Your task to perform on an android device: check storage Image 0: 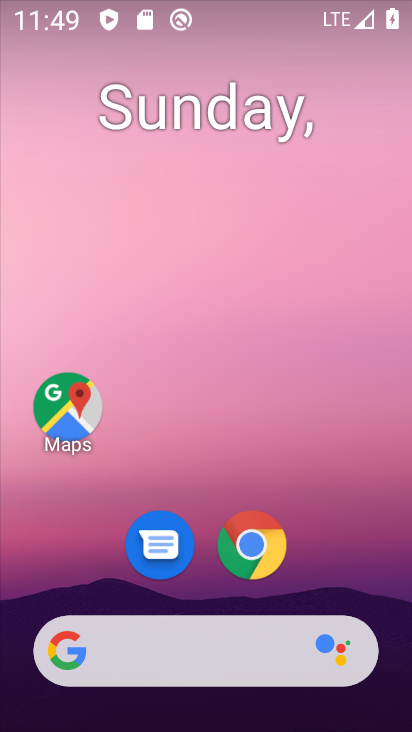
Step 0: drag from (370, 534) to (370, 137)
Your task to perform on an android device: check storage Image 1: 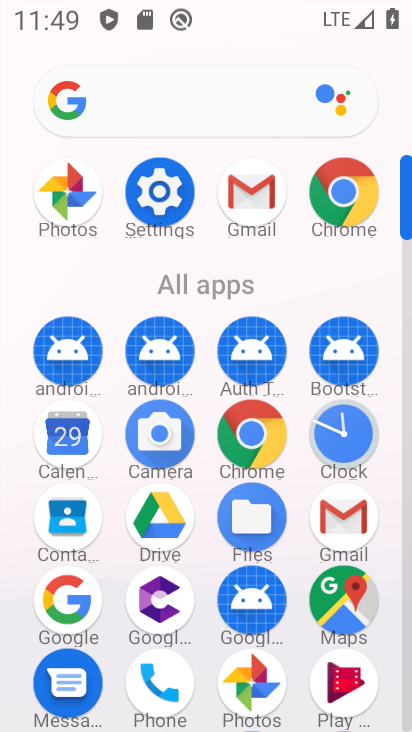
Step 1: click (165, 210)
Your task to perform on an android device: check storage Image 2: 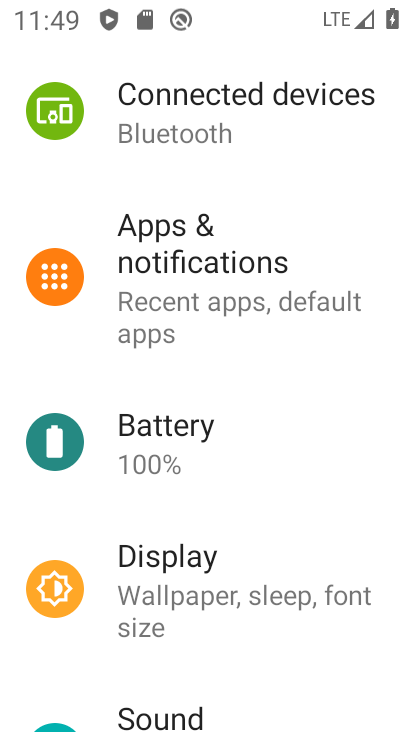
Step 2: drag from (338, 210) to (341, 369)
Your task to perform on an android device: check storage Image 3: 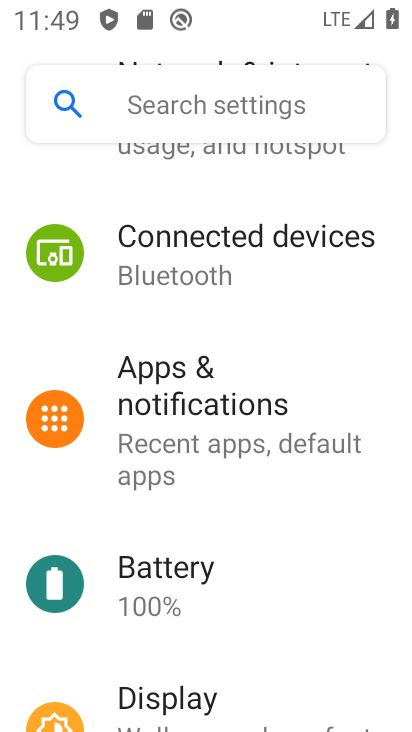
Step 3: drag from (357, 181) to (361, 367)
Your task to perform on an android device: check storage Image 4: 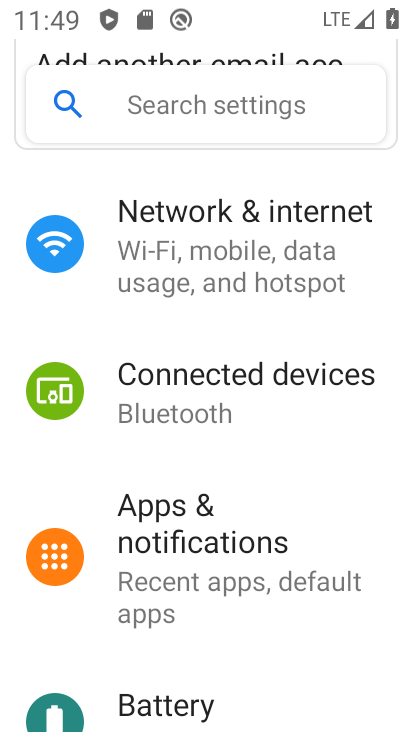
Step 4: drag from (369, 160) to (353, 340)
Your task to perform on an android device: check storage Image 5: 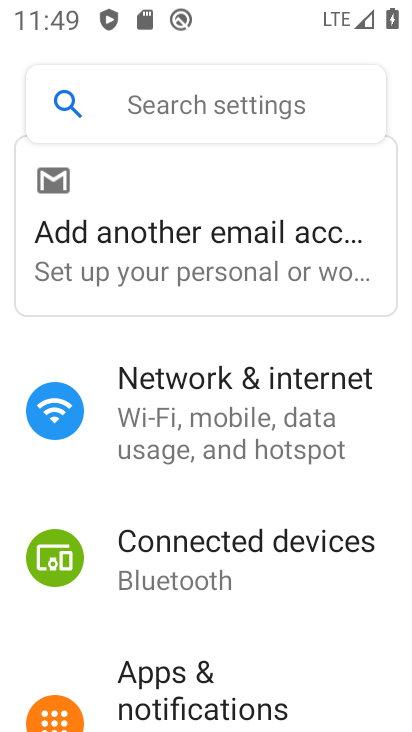
Step 5: drag from (359, 229) to (360, 367)
Your task to perform on an android device: check storage Image 6: 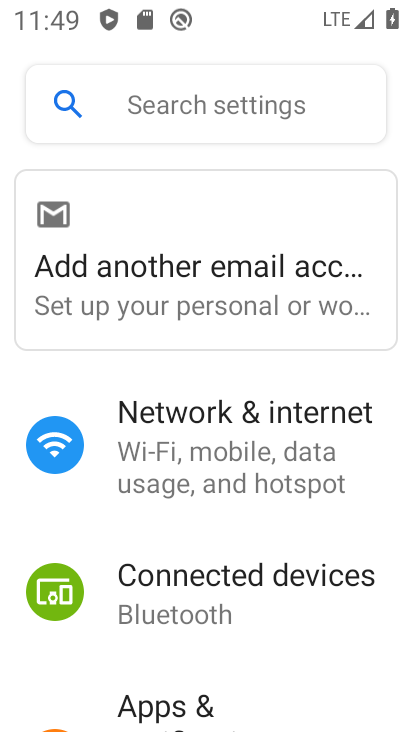
Step 6: drag from (323, 541) to (334, 423)
Your task to perform on an android device: check storage Image 7: 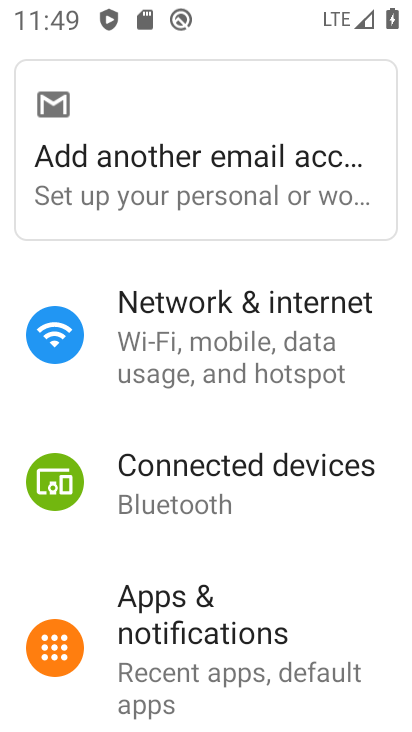
Step 7: drag from (332, 568) to (340, 399)
Your task to perform on an android device: check storage Image 8: 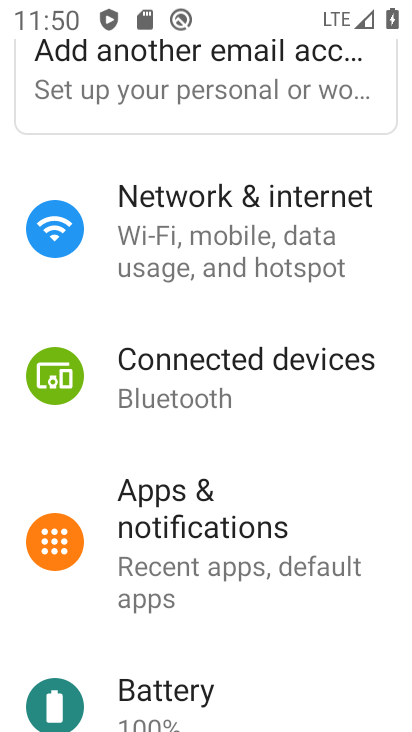
Step 8: drag from (339, 628) to (349, 459)
Your task to perform on an android device: check storage Image 9: 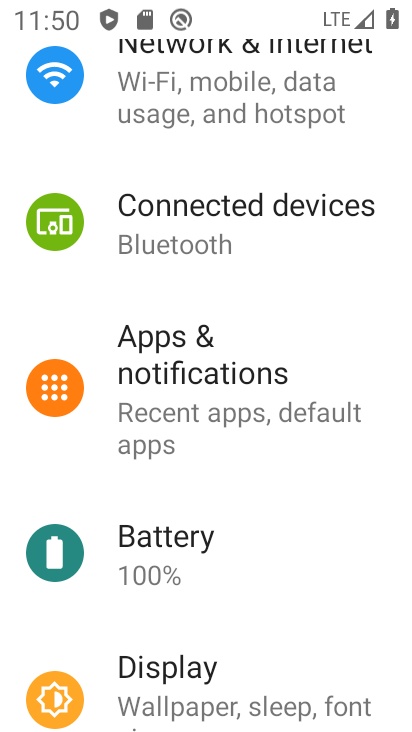
Step 9: drag from (337, 591) to (343, 432)
Your task to perform on an android device: check storage Image 10: 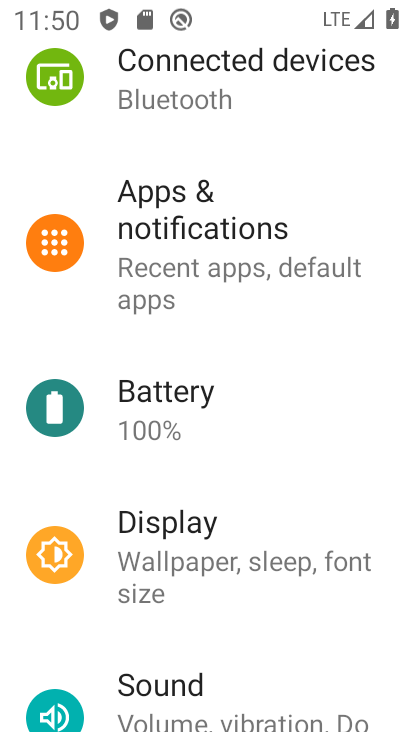
Step 10: drag from (339, 621) to (341, 415)
Your task to perform on an android device: check storage Image 11: 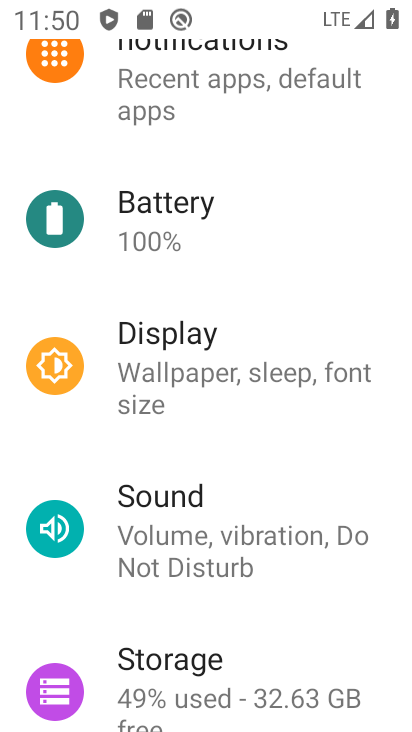
Step 11: drag from (340, 616) to (344, 361)
Your task to perform on an android device: check storage Image 12: 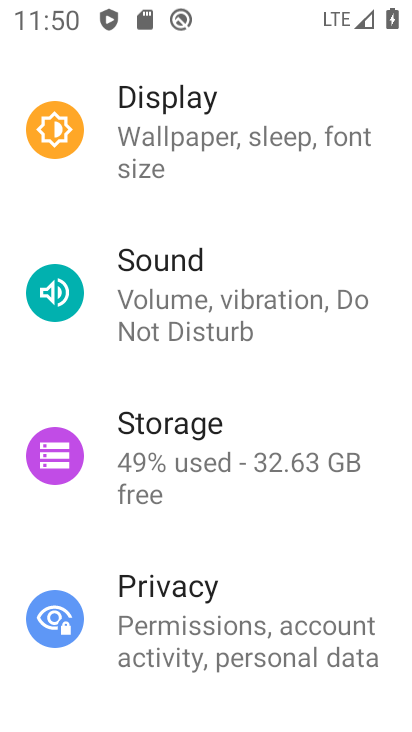
Step 12: click (275, 452)
Your task to perform on an android device: check storage Image 13: 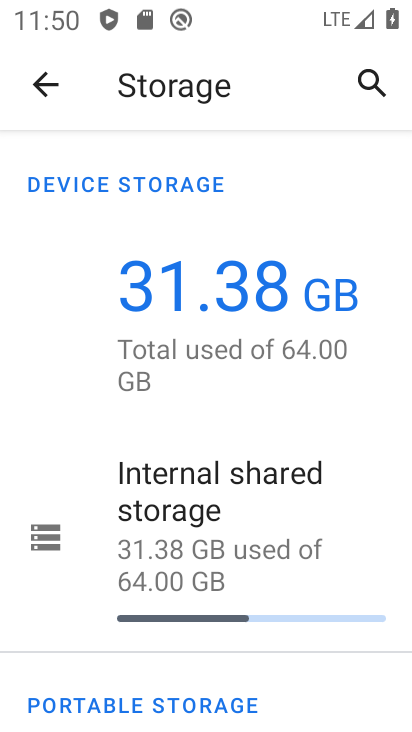
Step 13: task complete